Your task to perform on an android device: Go to network settings Image 0: 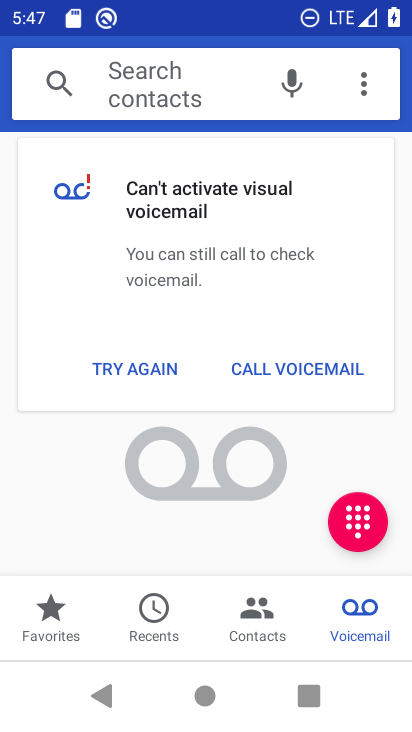
Step 0: press home button
Your task to perform on an android device: Go to network settings Image 1: 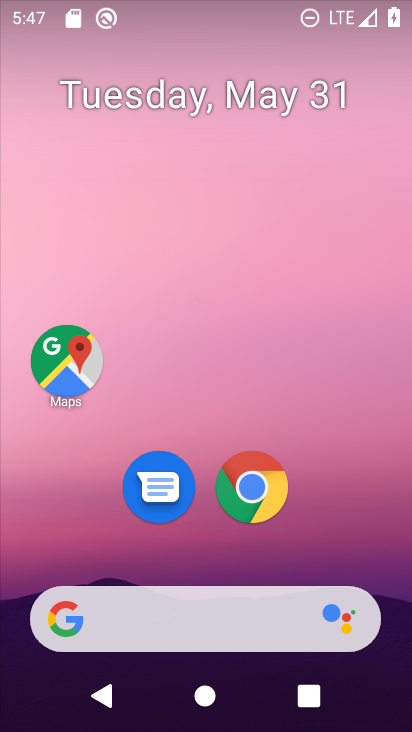
Step 1: drag from (359, 532) to (280, 83)
Your task to perform on an android device: Go to network settings Image 2: 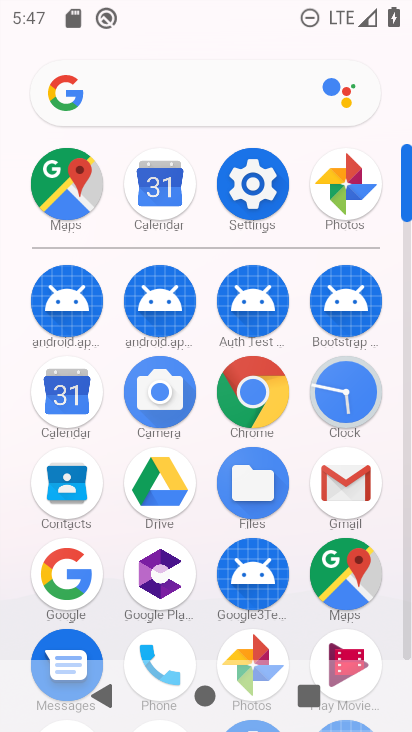
Step 2: click (251, 187)
Your task to perform on an android device: Go to network settings Image 3: 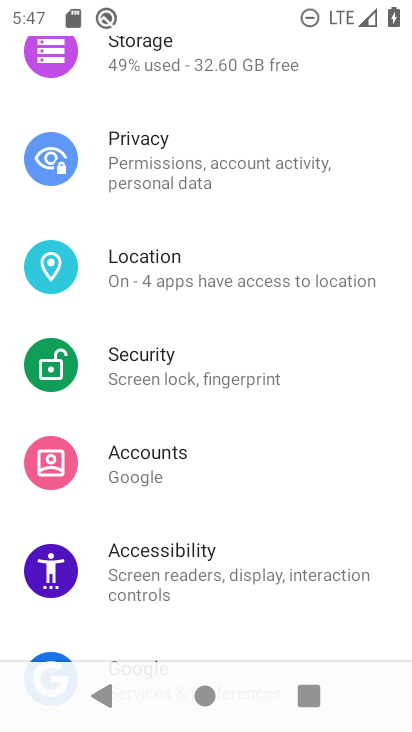
Step 3: drag from (251, 187) to (254, 661)
Your task to perform on an android device: Go to network settings Image 4: 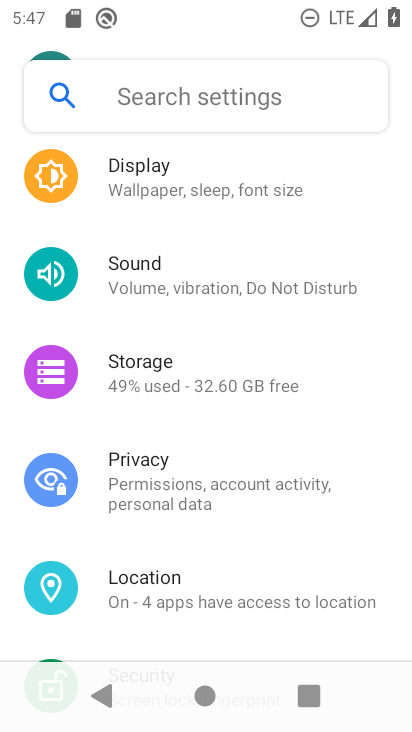
Step 4: drag from (207, 238) to (168, 714)
Your task to perform on an android device: Go to network settings Image 5: 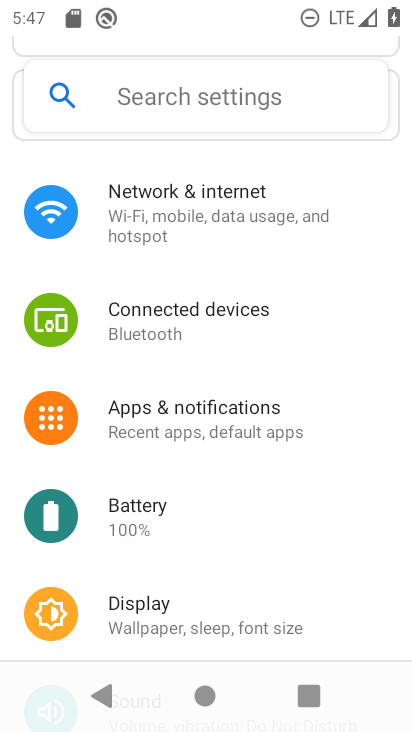
Step 5: click (153, 190)
Your task to perform on an android device: Go to network settings Image 6: 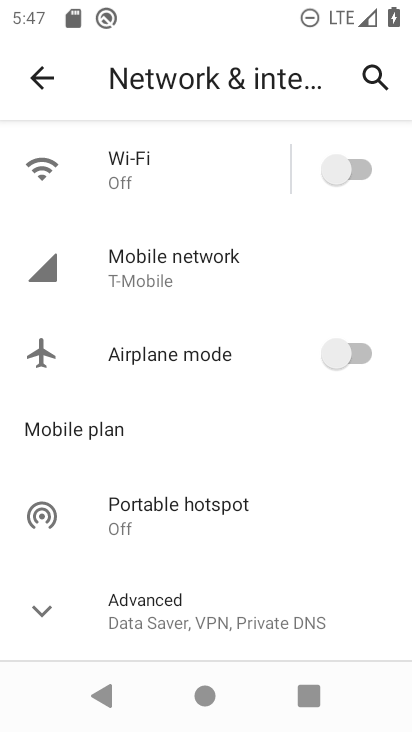
Step 6: task complete